Your task to perform on an android device: check storage Image 0: 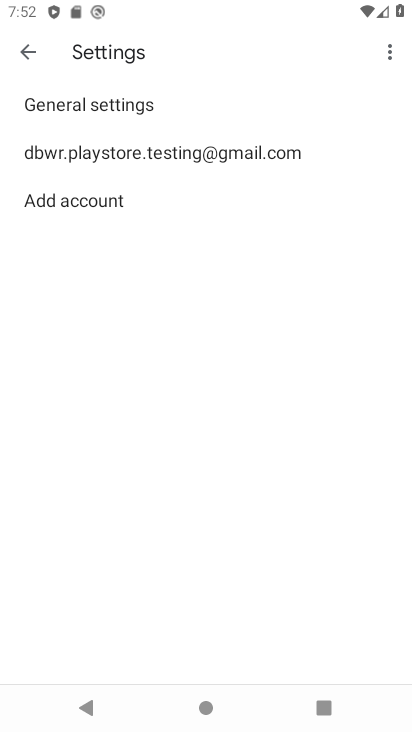
Step 0: press home button
Your task to perform on an android device: check storage Image 1: 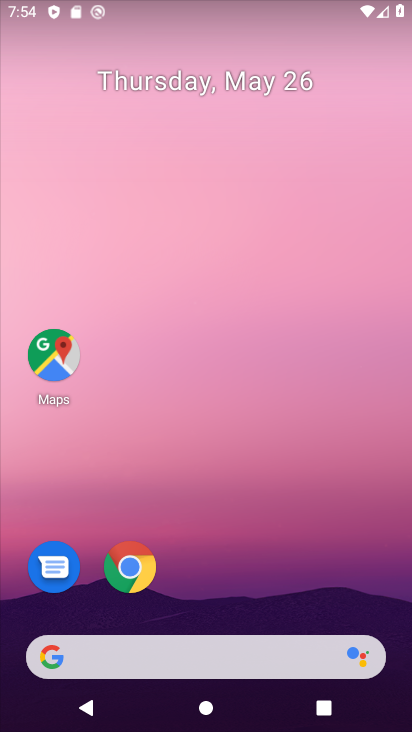
Step 1: drag from (259, 700) to (250, 610)
Your task to perform on an android device: check storage Image 2: 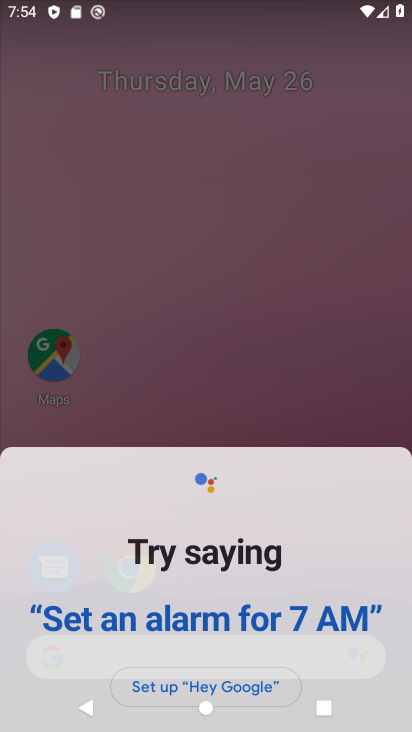
Step 2: drag from (278, 692) to (338, 59)
Your task to perform on an android device: check storage Image 3: 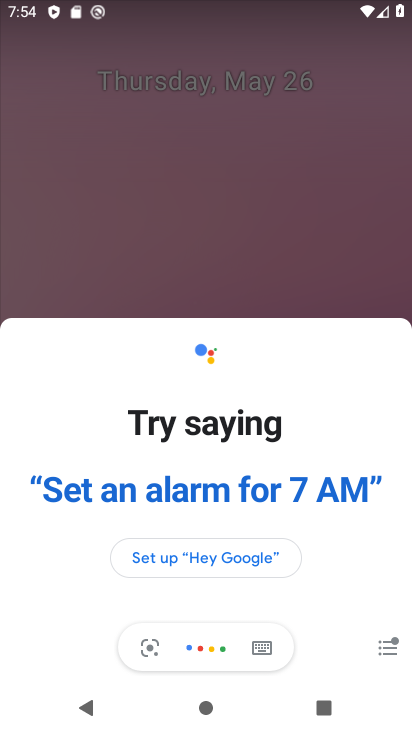
Step 3: press home button
Your task to perform on an android device: check storage Image 4: 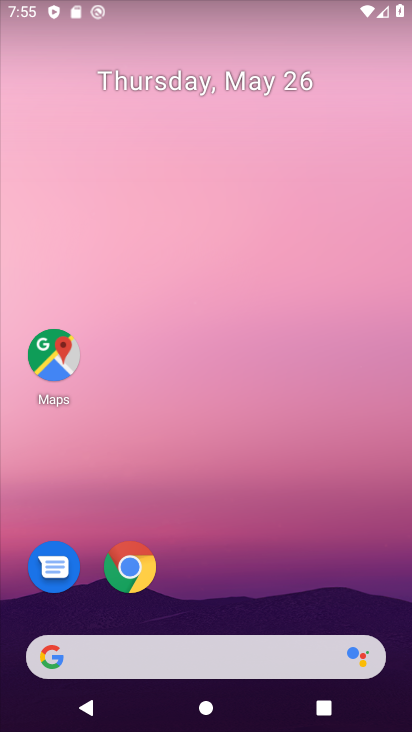
Step 4: drag from (280, 715) to (212, 38)
Your task to perform on an android device: check storage Image 5: 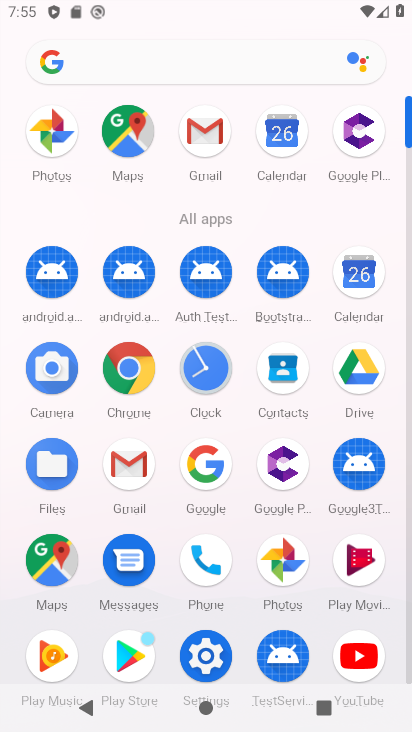
Step 5: click (210, 664)
Your task to perform on an android device: check storage Image 6: 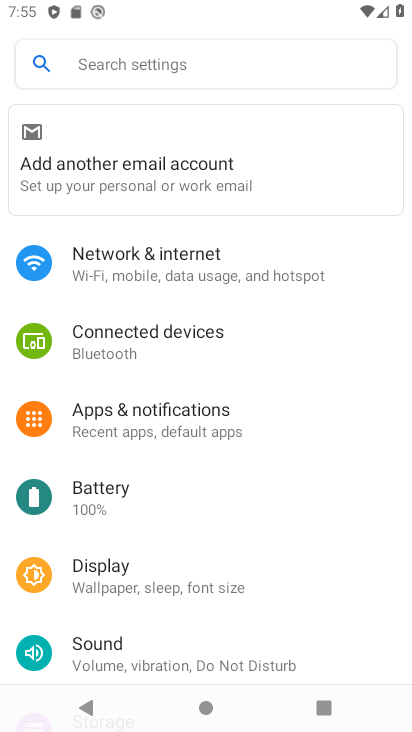
Step 6: drag from (279, 544) to (320, 216)
Your task to perform on an android device: check storage Image 7: 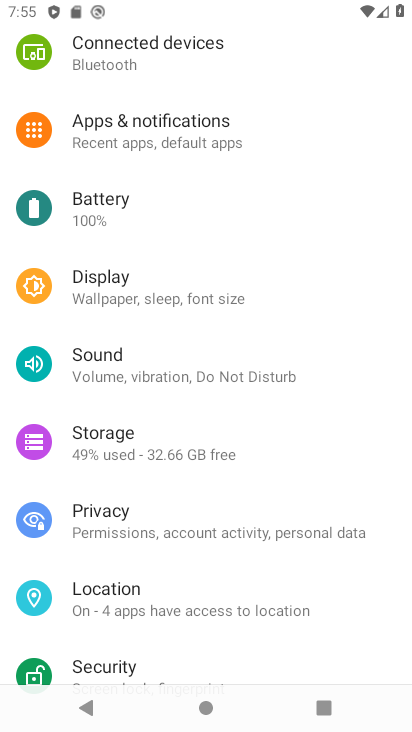
Step 7: click (214, 454)
Your task to perform on an android device: check storage Image 8: 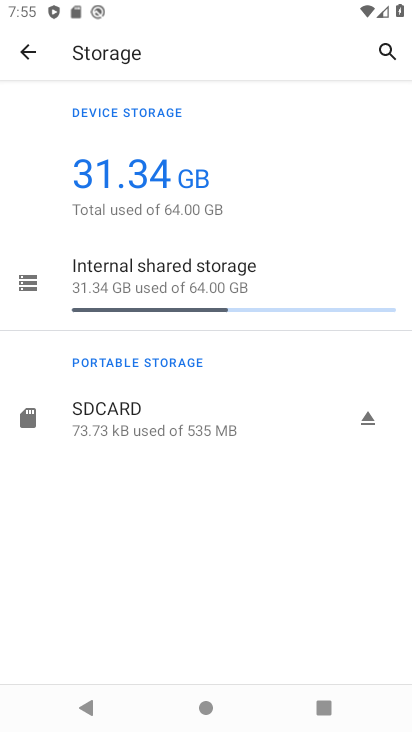
Step 8: task complete